Your task to perform on an android device: change the clock style Image 0: 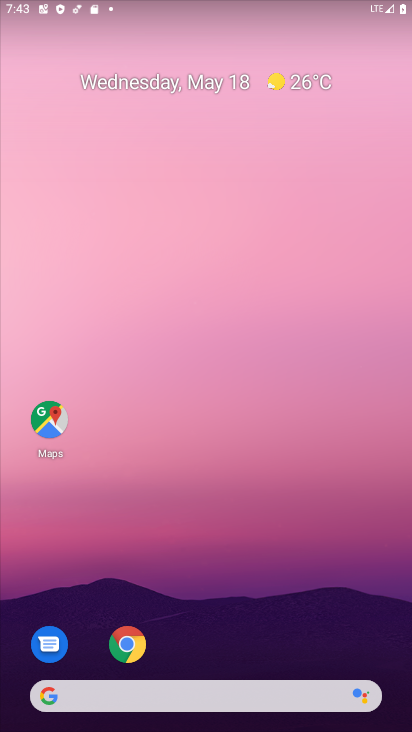
Step 0: drag from (364, 413) to (350, 235)
Your task to perform on an android device: change the clock style Image 1: 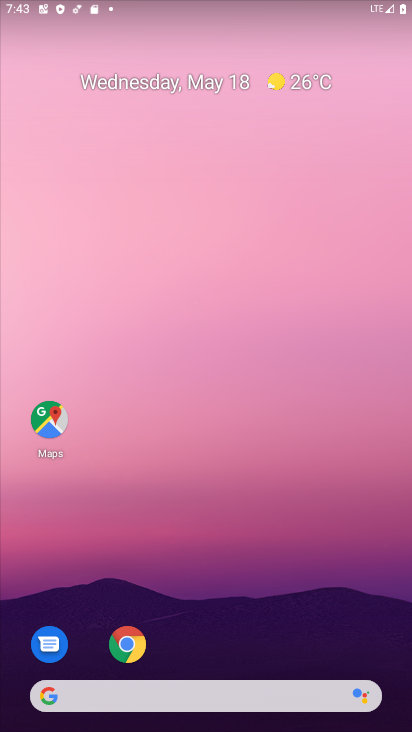
Step 1: drag from (389, 681) to (360, 310)
Your task to perform on an android device: change the clock style Image 2: 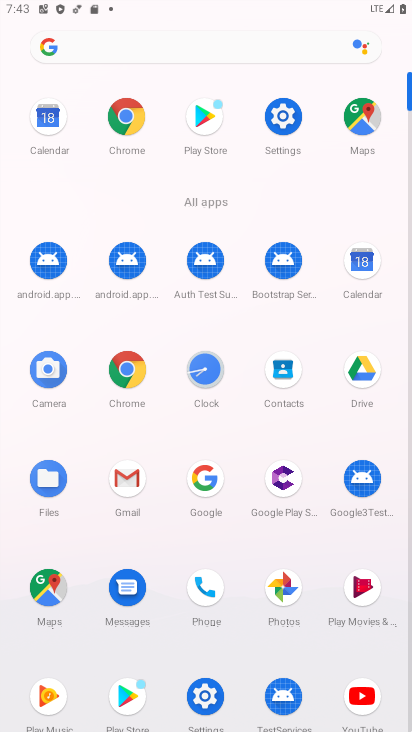
Step 2: click (206, 373)
Your task to perform on an android device: change the clock style Image 3: 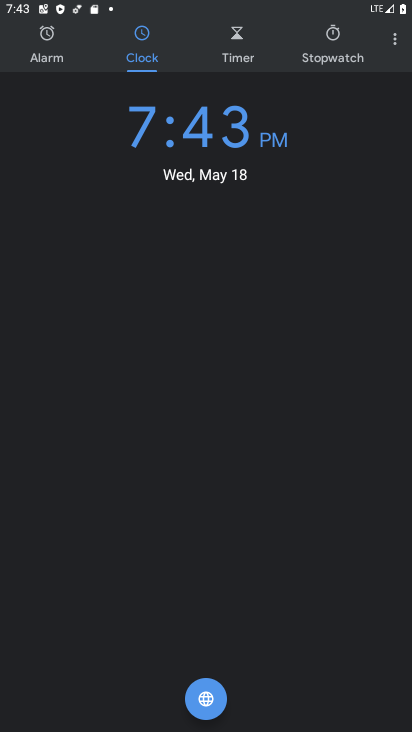
Step 3: click (394, 35)
Your task to perform on an android device: change the clock style Image 4: 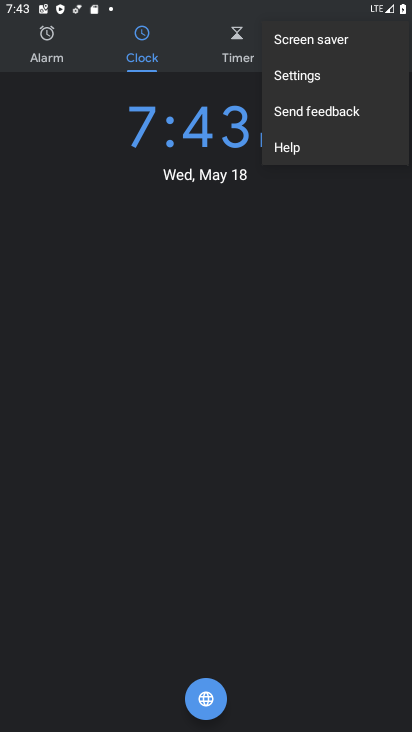
Step 4: click (315, 69)
Your task to perform on an android device: change the clock style Image 5: 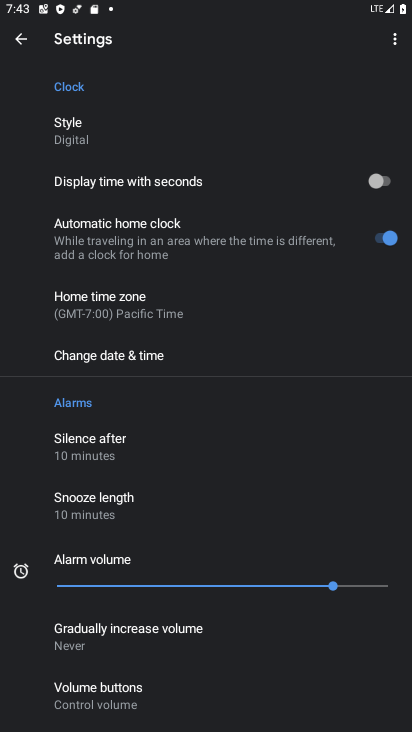
Step 5: click (64, 131)
Your task to perform on an android device: change the clock style Image 6: 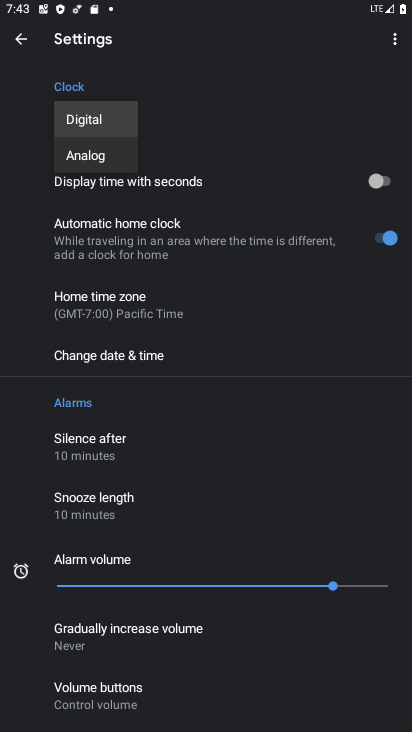
Step 6: click (73, 151)
Your task to perform on an android device: change the clock style Image 7: 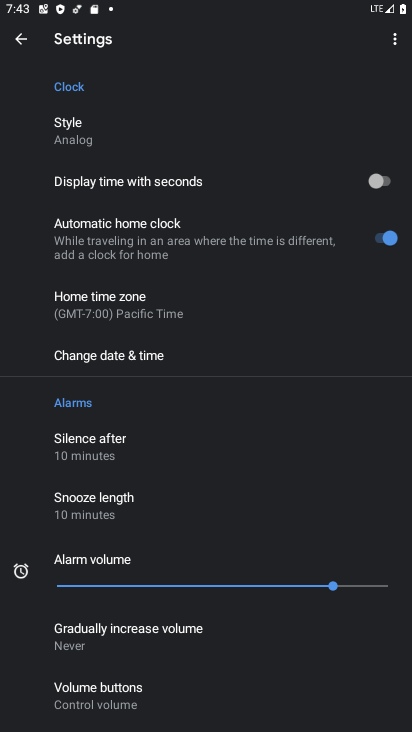
Step 7: task complete